Your task to perform on an android device: see sites visited before in the chrome app Image 0: 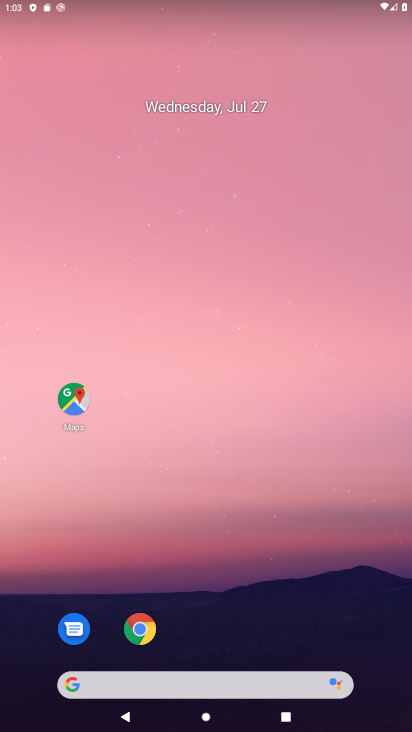
Step 0: drag from (271, 646) to (253, 10)
Your task to perform on an android device: see sites visited before in the chrome app Image 1: 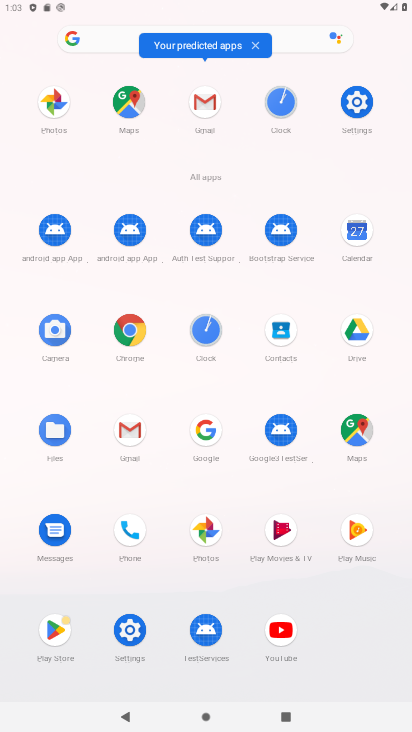
Step 1: click (134, 331)
Your task to perform on an android device: see sites visited before in the chrome app Image 2: 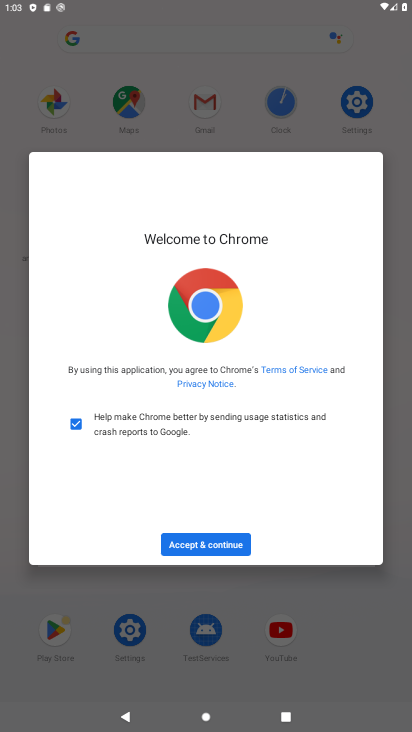
Step 2: click (208, 542)
Your task to perform on an android device: see sites visited before in the chrome app Image 3: 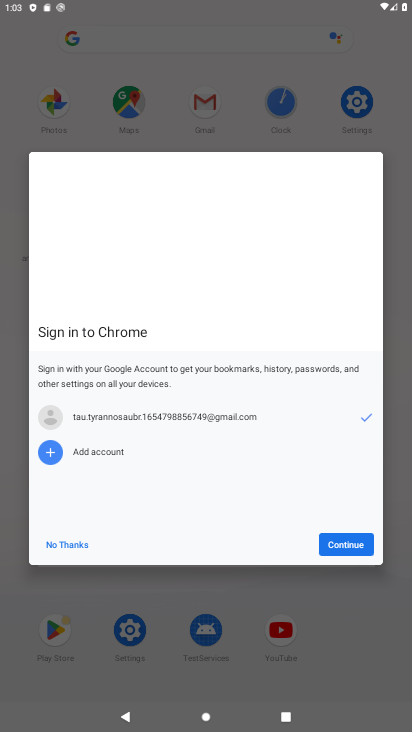
Step 3: click (350, 548)
Your task to perform on an android device: see sites visited before in the chrome app Image 4: 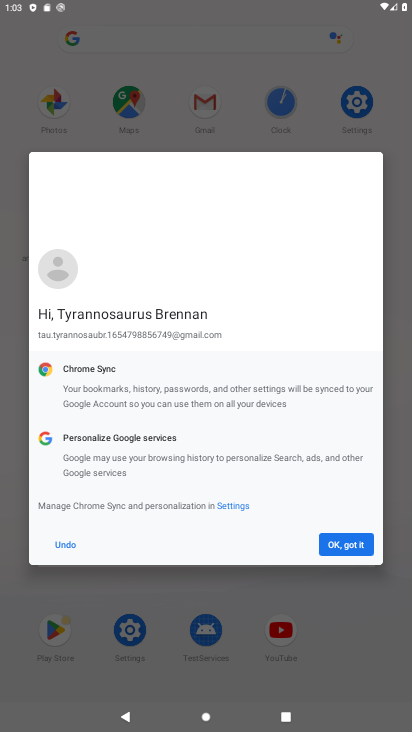
Step 4: click (349, 550)
Your task to perform on an android device: see sites visited before in the chrome app Image 5: 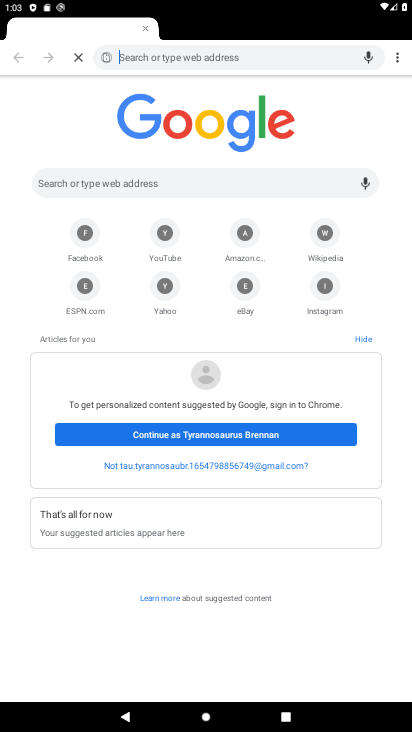
Step 5: task complete